Your task to perform on an android device: Open Wikipedia Image 0: 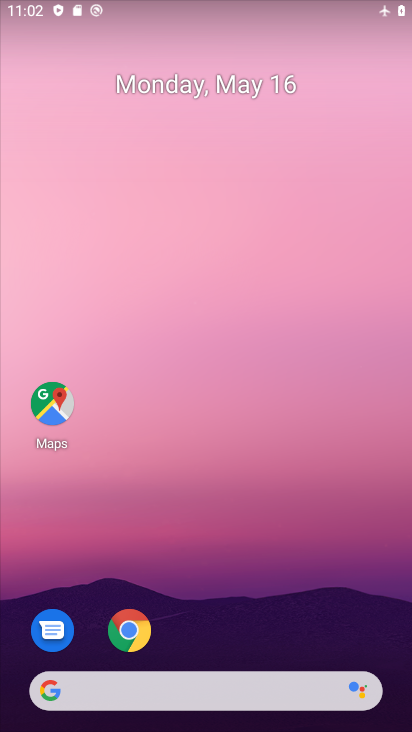
Step 0: drag from (314, 7) to (311, 321)
Your task to perform on an android device: Open Wikipedia Image 1: 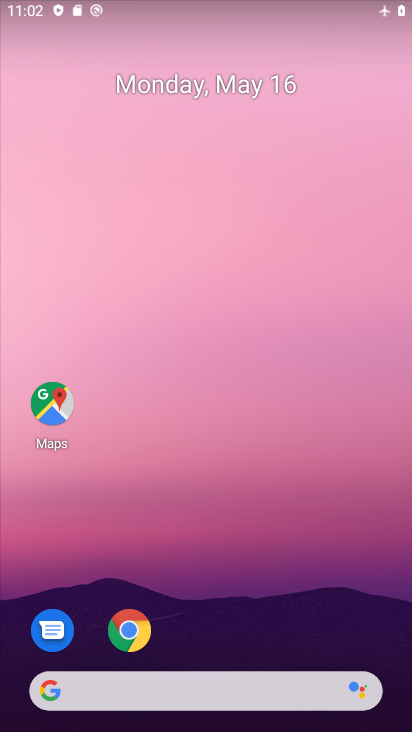
Step 1: drag from (328, 3) to (311, 662)
Your task to perform on an android device: Open Wikipedia Image 2: 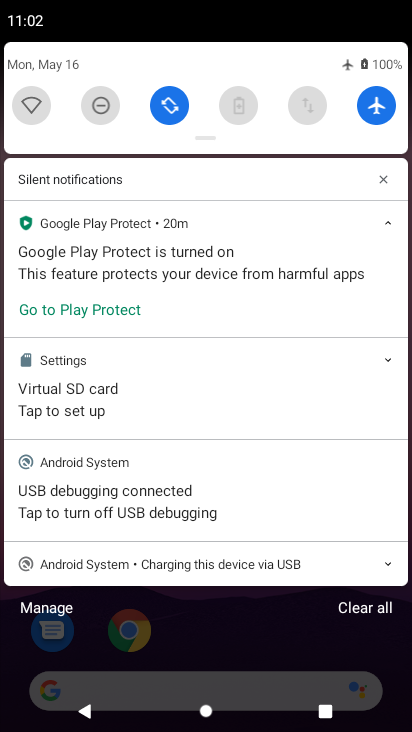
Step 2: click (382, 106)
Your task to perform on an android device: Open Wikipedia Image 3: 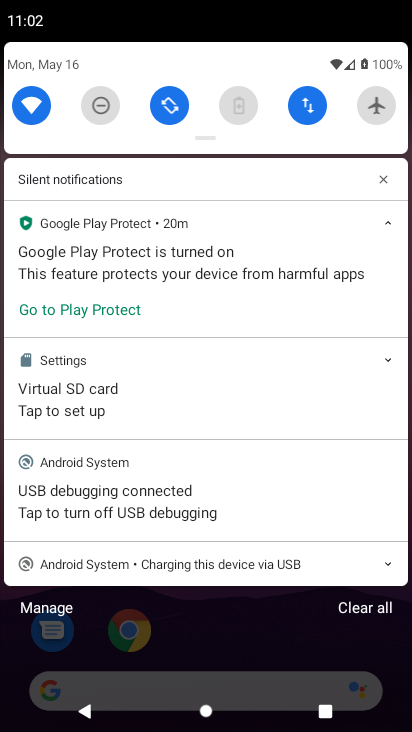
Step 3: click (268, 597)
Your task to perform on an android device: Open Wikipedia Image 4: 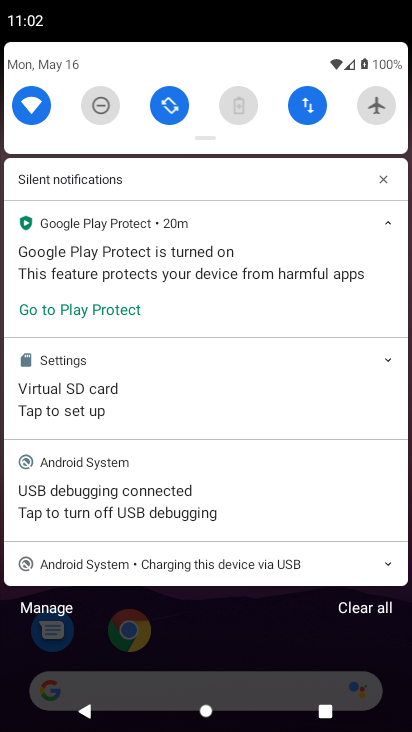
Step 4: click (295, 652)
Your task to perform on an android device: Open Wikipedia Image 5: 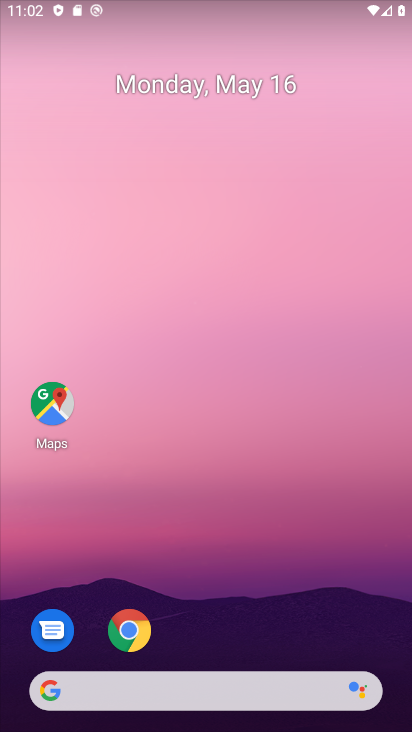
Step 5: click (147, 631)
Your task to perform on an android device: Open Wikipedia Image 6: 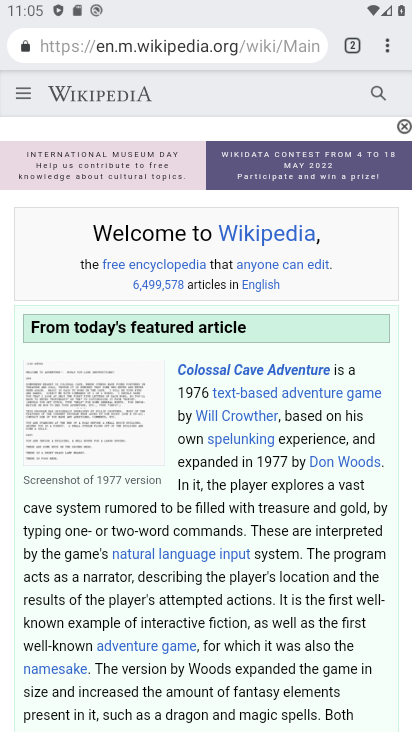
Step 6: task complete